Your task to perform on an android device: Open sound settings Image 0: 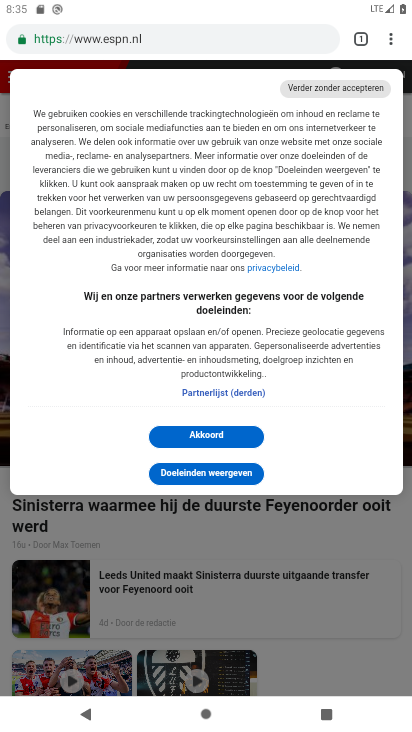
Step 0: press home button
Your task to perform on an android device: Open sound settings Image 1: 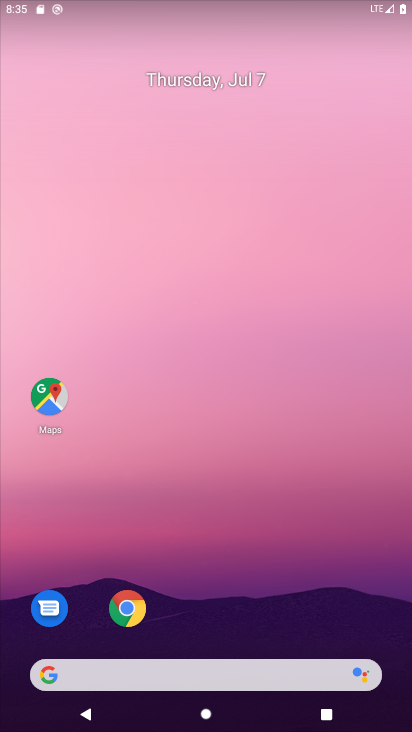
Step 1: drag from (335, 603) to (344, 74)
Your task to perform on an android device: Open sound settings Image 2: 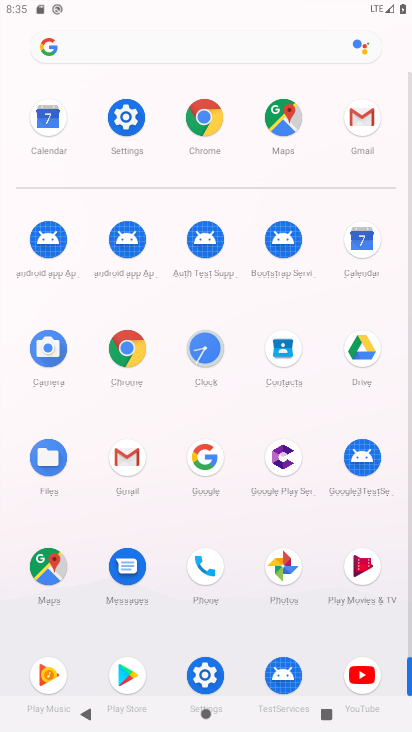
Step 2: click (137, 122)
Your task to perform on an android device: Open sound settings Image 3: 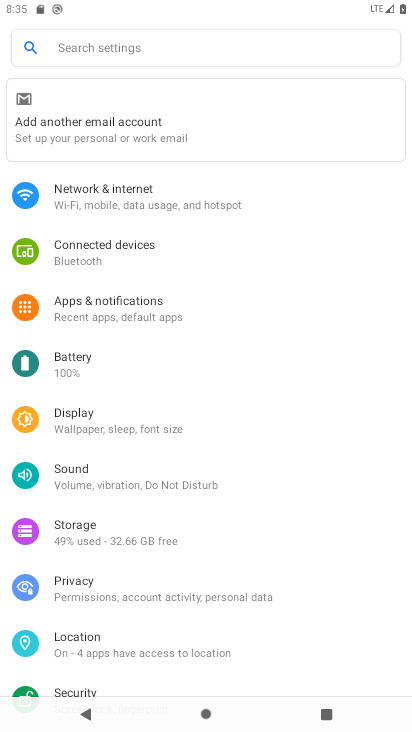
Step 3: drag from (341, 431) to (342, 289)
Your task to perform on an android device: Open sound settings Image 4: 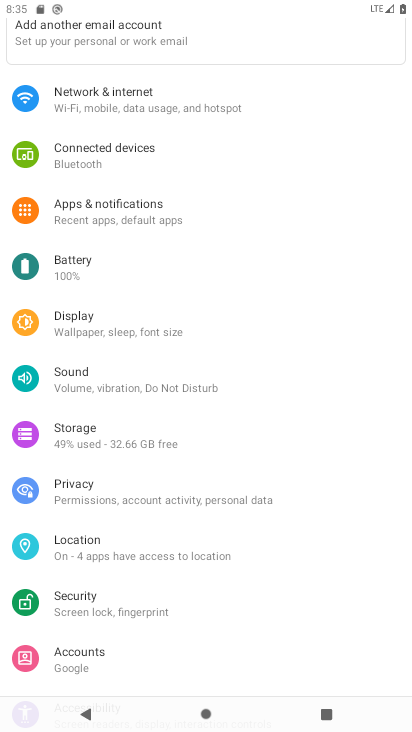
Step 4: drag from (342, 493) to (351, 370)
Your task to perform on an android device: Open sound settings Image 5: 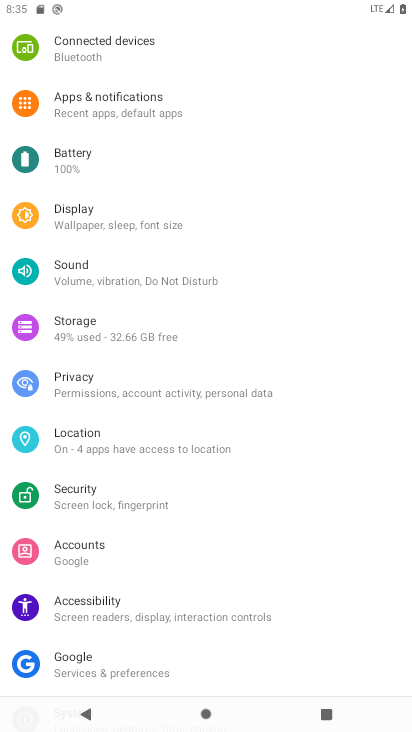
Step 5: drag from (346, 527) to (347, 391)
Your task to perform on an android device: Open sound settings Image 6: 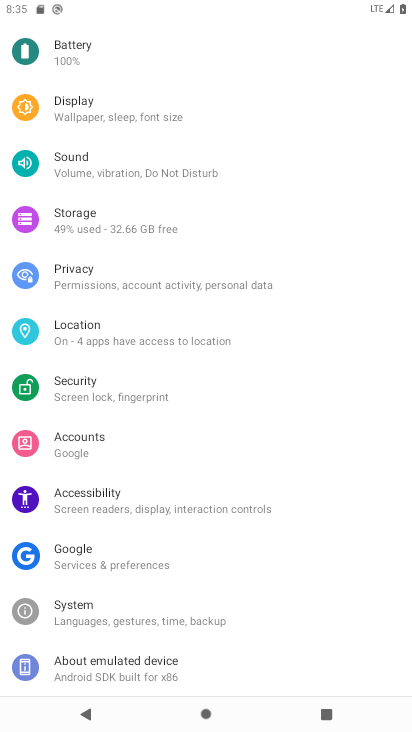
Step 6: drag from (379, 550) to (371, 403)
Your task to perform on an android device: Open sound settings Image 7: 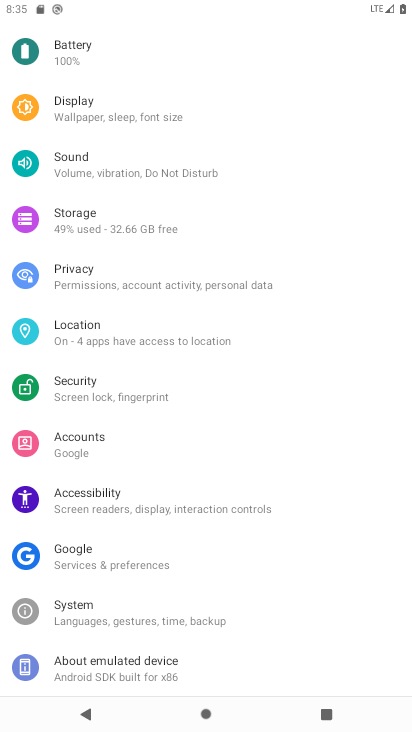
Step 7: click (171, 167)
Your task to perform on an android device: Open sound settings Image 8: 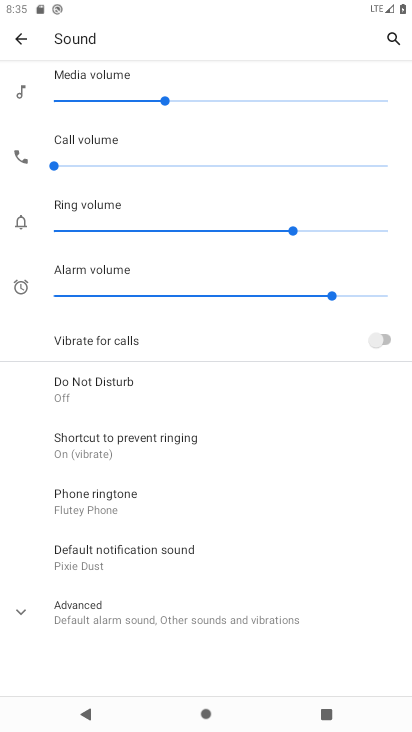
Step 8: click (231, 630)
Your task to perform on an android device: Open sound settings Image 9: 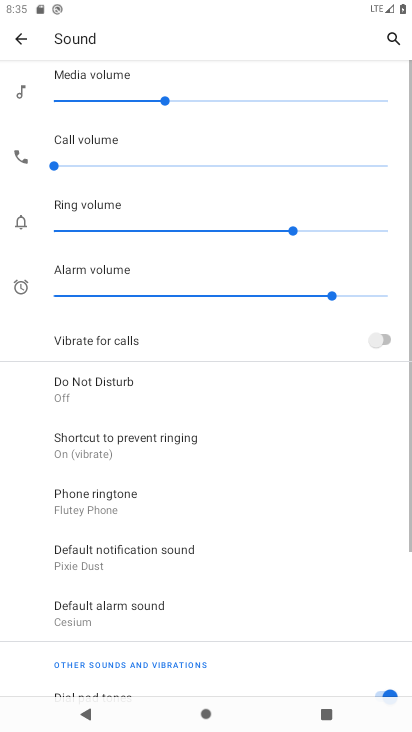
Step 9: task complete